Your task to perform on an android device: Open location settings Image 0: 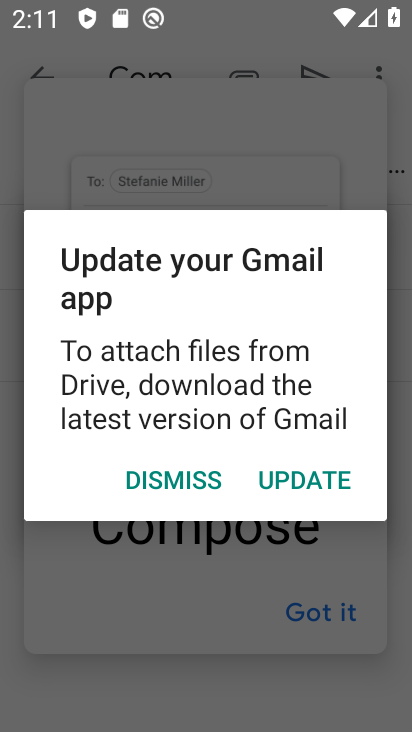
Step 0: press back button
Your task to perform on an android device: Open location settings Image 1: 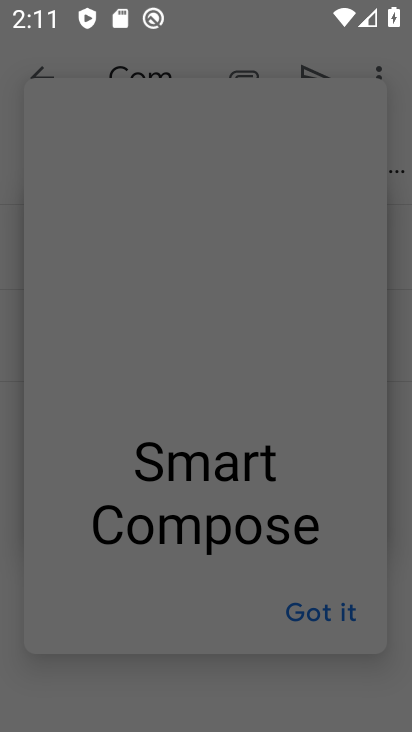
Step 1: press back button
Your task to perform on an android device: Open location settings Image 2: 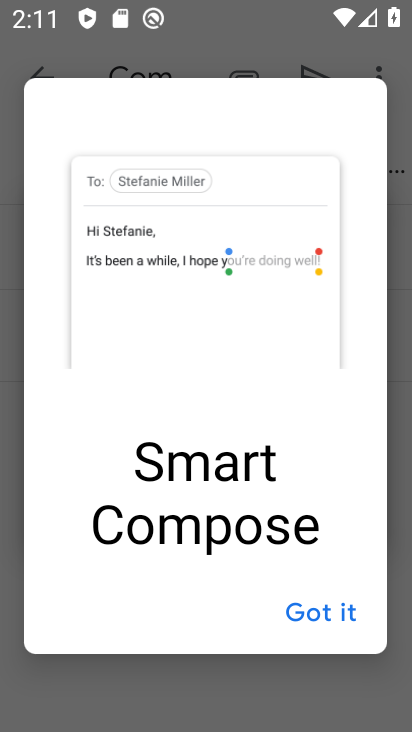
Step 2: press home button
Your task to perform on an android device: Open location settings Image 3: 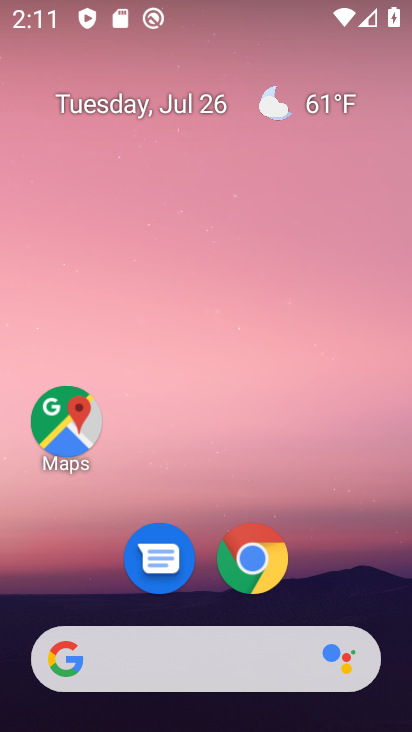
Step 3: drag from (69, 593) to (218, 26)
Your task to perform on an android device: Open location settings Image 4: 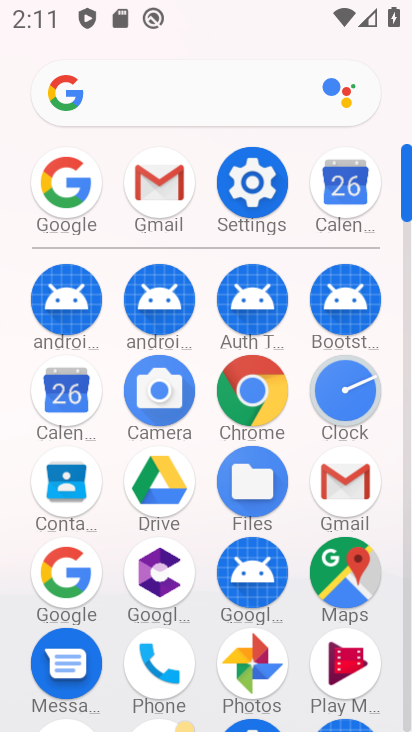
Step 4: click (253, 183)
Your task to perform on an android device: Open location settings Image 5: 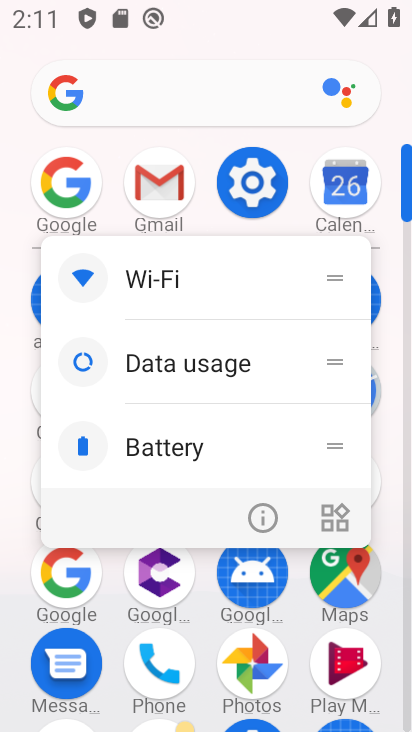
Step 5: click (264, 211)
Your task to perform on an android device: Open location settings Image 6: 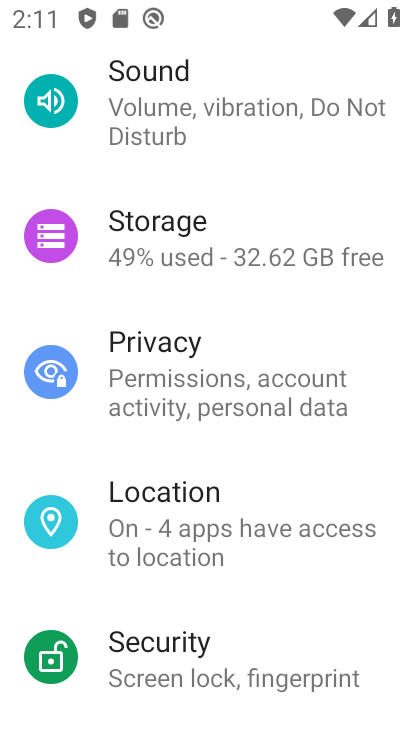
Step 6: click (199, 529)
Your task to perform on an android device: Open location settings Image 7: 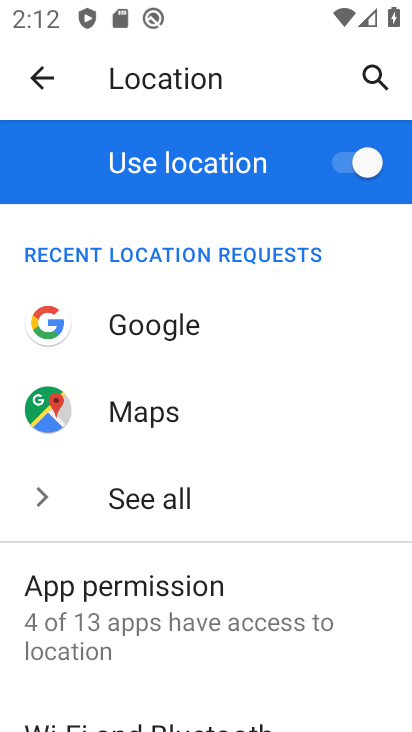
Step 7: task complete